Your task to perform on an android device: toggle translation in the chrome app Image 0: 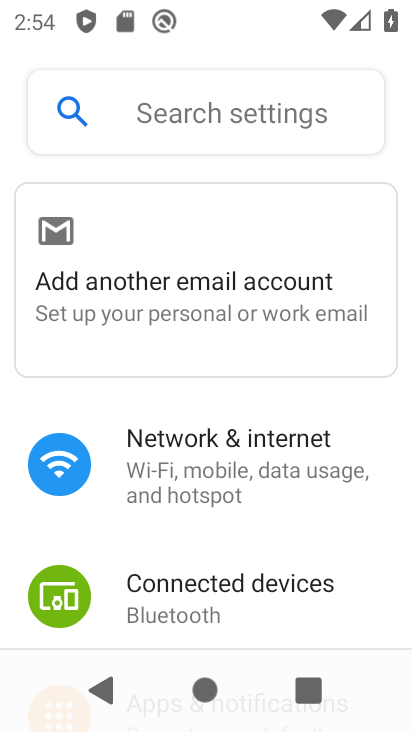
Step 0: press home button
Your task to perform on an android device: toggle translation in the chrome app Image 1: 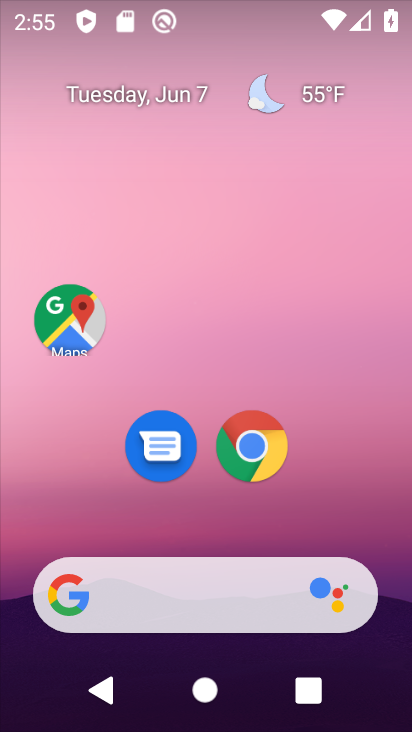
Step 1: click (251, 479)
Your task to perform on an android device: toggle translation in the chrome app Image 2: 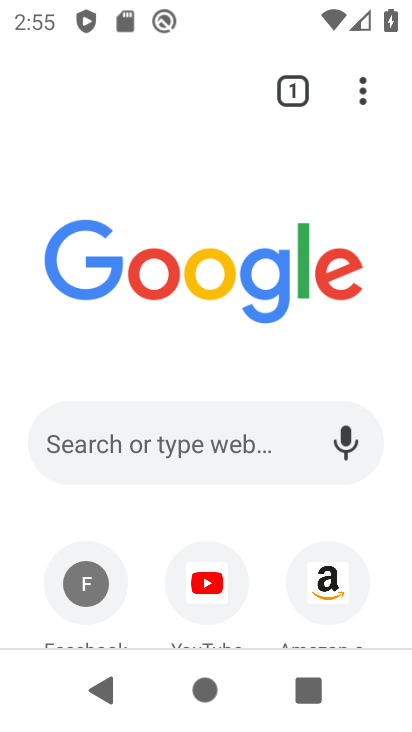
Step 2: click (363, 102)
Your task to perform on an android device: toggle translation in the chrome app Image 3: 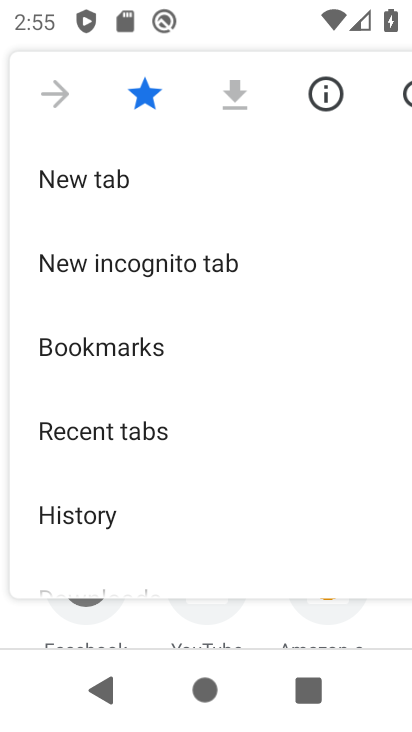
Step 3: drag from (211, 566) to (211, 123)
Your task to perform on an android device: toggle translation in the chrome app Image 4: 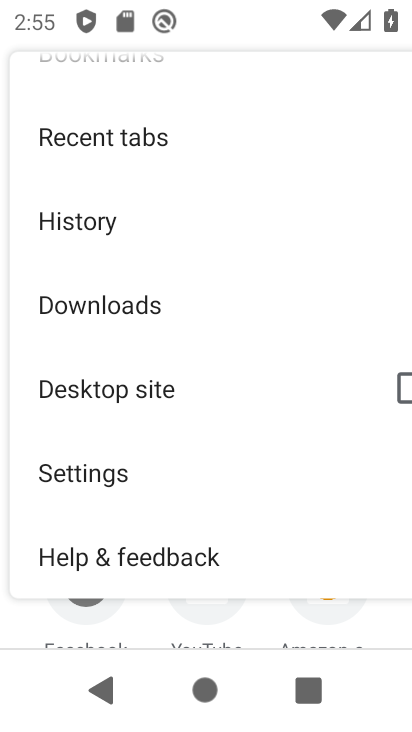
Step 4: click (65, 498)
Your task to perform on an android device: toggle translation in the chrome app Image 5: 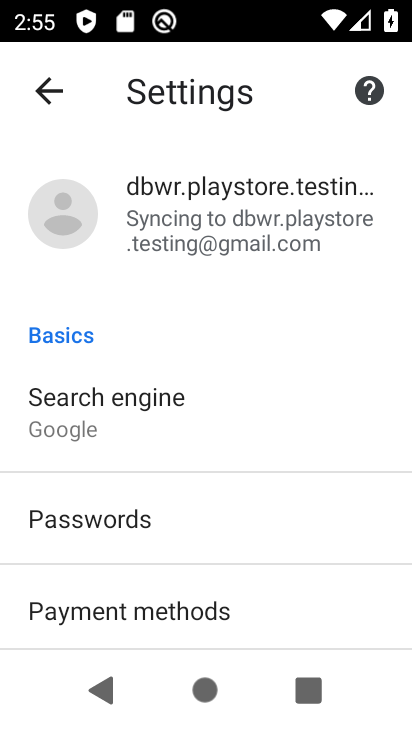
Step 5: drag from (82, 563) to (12, 1)
Your task to perform on an android device: toggle translation in the chrome app Image 6: 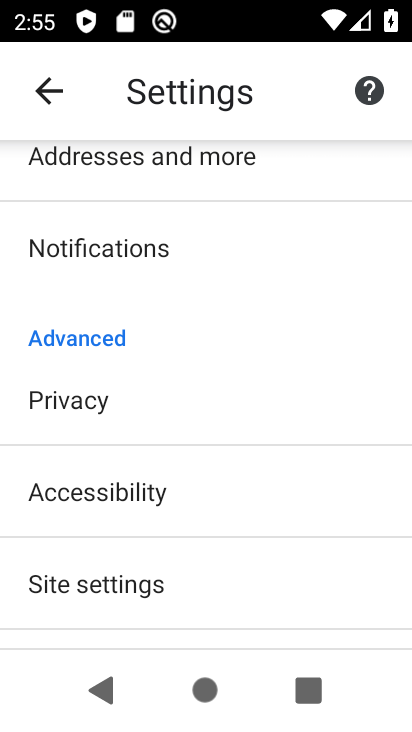
Step 6: drag from (175, 587) to (129, 135)
Your task to perform on an android device: toggle translation in the chrome app Image 7: 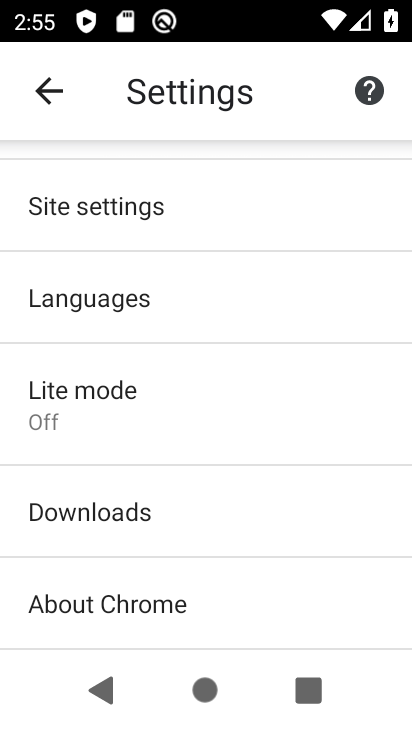
Step 7: drag from (176, 578) to (178, 468)
Your task to perform on an android device: toggle translation in the chrome app Image 8: 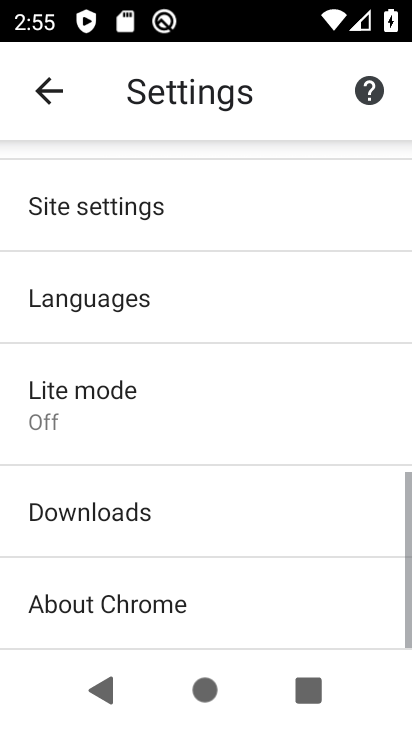
Step 8: click (110, 304)
Your task to perform on an android device: toggle translation in the chrome app Image 9: 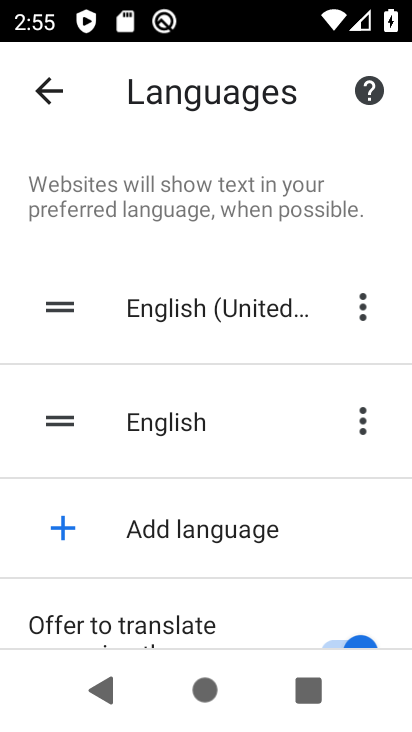
Step 9: click (135, 622)
Your task to perform on an android device: toggle translation in the chrome app Image 10: 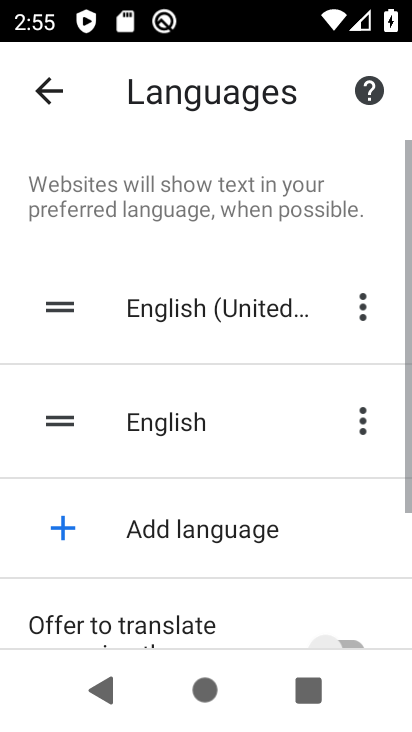
Step 10: task complete